Your task to perform on an android device: Do I have any events tomorrow? Image 0: 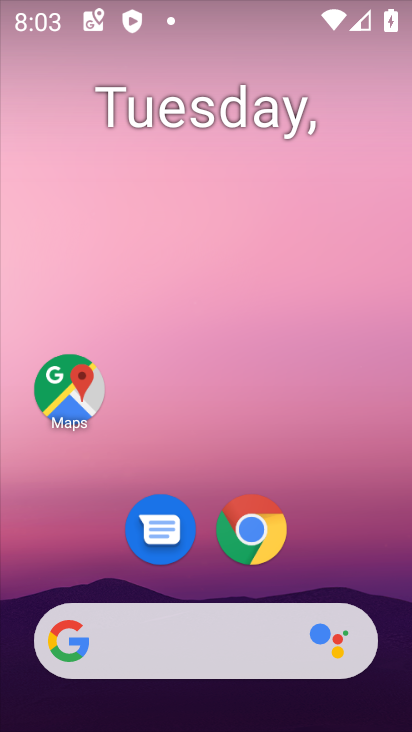
Step 0: drag from (221, 594) to (267, 239)
Your task to perform on an android device: Do I have any events tomorrow? Image 1: 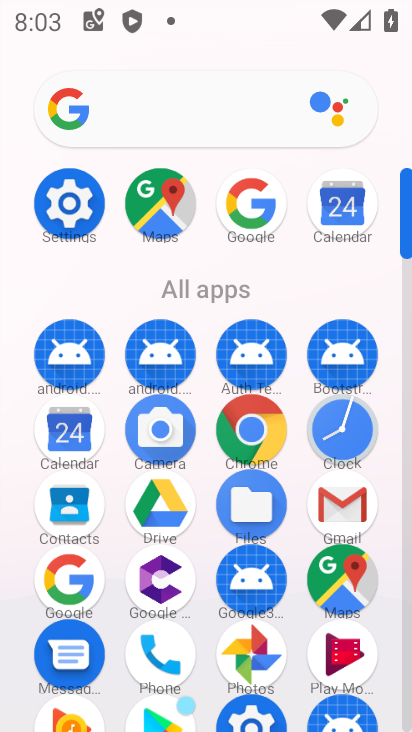
Step 1: click (75, 444)
Your task to perform on an android device: Do I have any events tomorrow? Image 2: 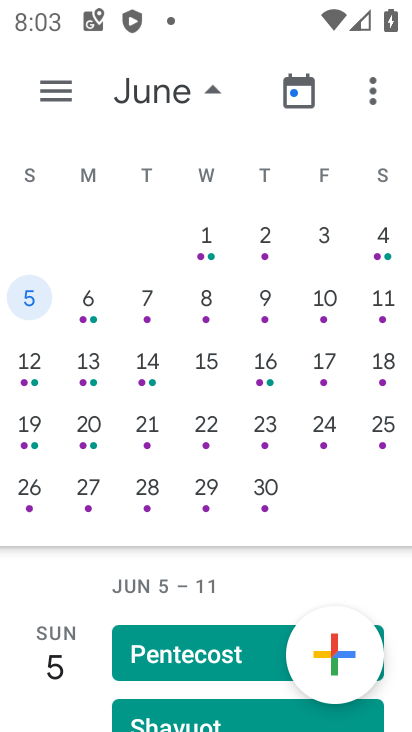
Step 2: drag from (58, 403) to (410, 435)
Your task to perform on an android device: Do I have any events tomorrow? Image 3: 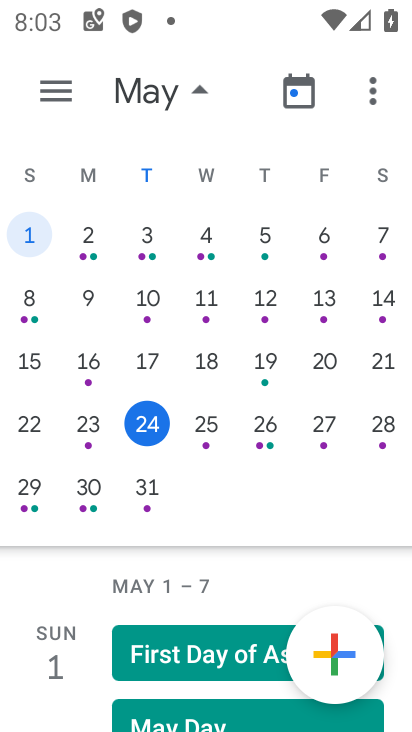
Step 3: drag from (162, 415) to (361, 403)
Your task to perform on an android device: Do I have any events tomorrow? Image 4: 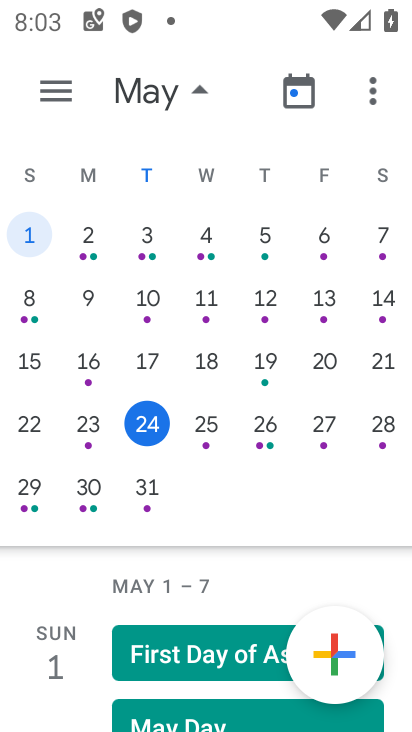
Step 4: click (266, 428)
Your task to perform on an android device: Do I have any events tomorrow? Image 5: 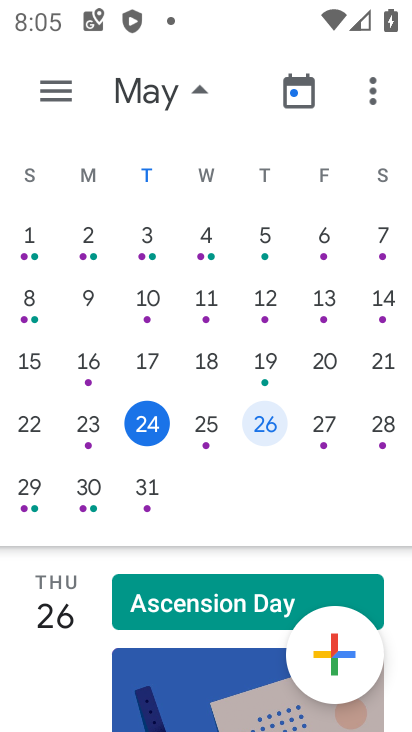
Step 5: task complete